Your task to perform on an android device: turn smart compose on in the gmail app Image 0: 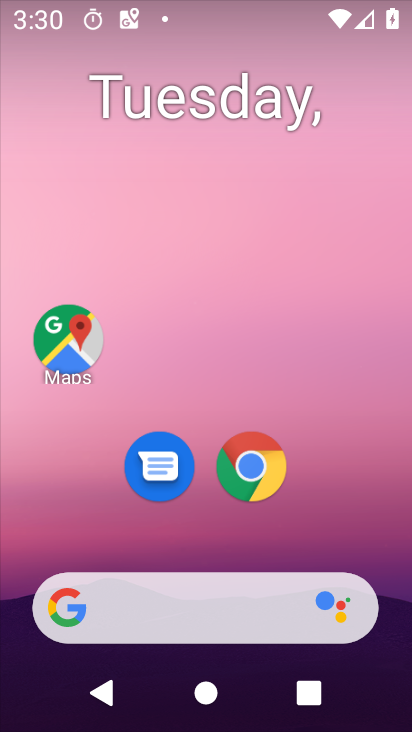
Step 0: drag from (377, 563) to (384, 253)
Your task to perform on an android device: turn smart compose on in the gmail app Image 1: 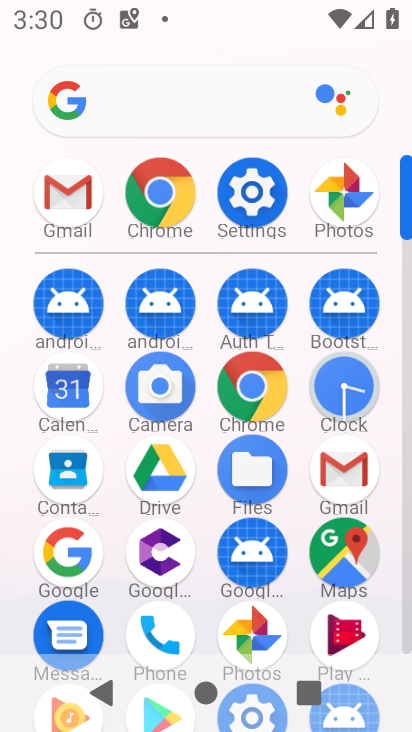
Step 1: click (368, 475)
Your task to perform on an android device: turn smart compose on in the gmail app Image 2: 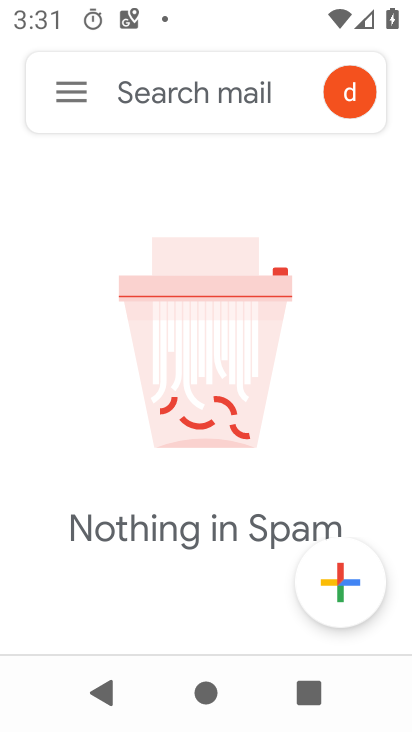
Step 2: click (74, 99)
Your task to perform on an android device: turn smart compose on in the gmail app Image 3: 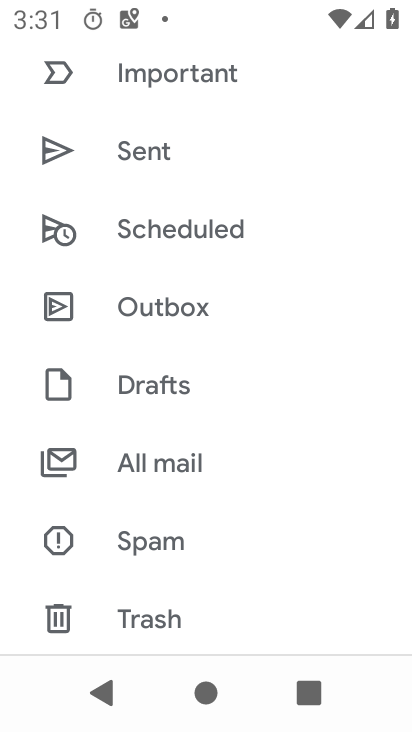
Step 3: drag from (315, 373) to (329, 301)
Your task to perform on an android device: turn smart compose on in the gmail app Image 4: 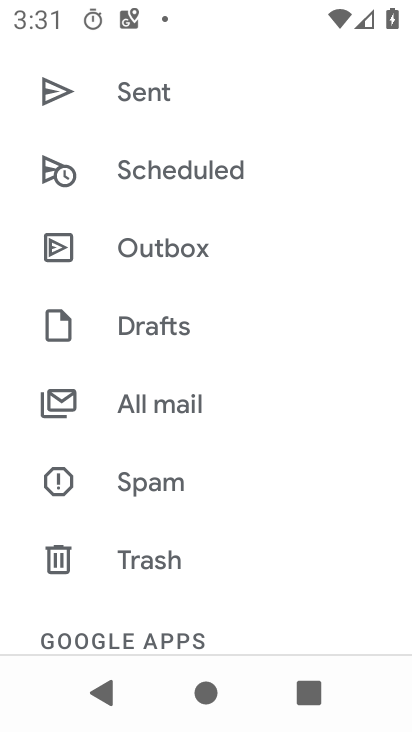
Step 4: drag from (334, 433) to (341, 349)
Your task to perform on an android device: turn smart compose on in the gmail app Image 5: 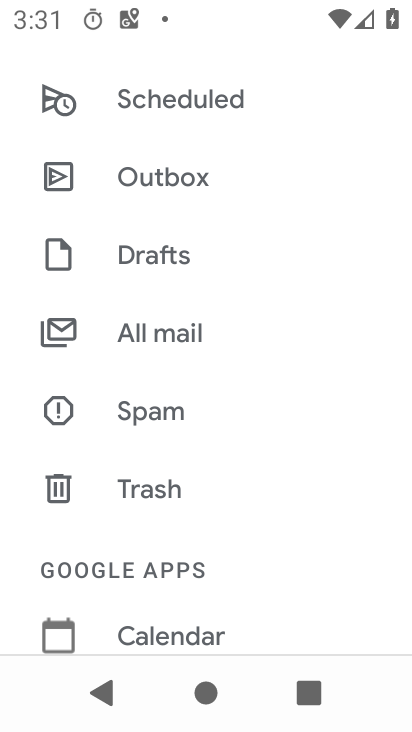
Step 5: drag from (324, 462) to (331, 357)
Your task to perform on an android device: turn smart compose on in the gmail app Image 6: 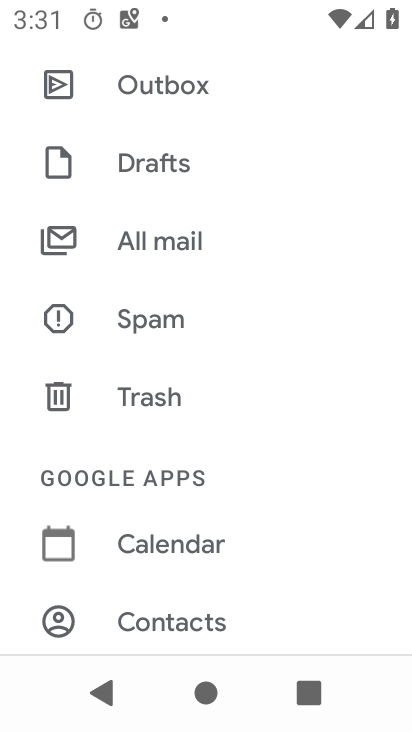
Step 6: drag from (322, 497) to (329, 357)
Your task to perform on an android device: turn smart compose on in the gmail app Image 7: 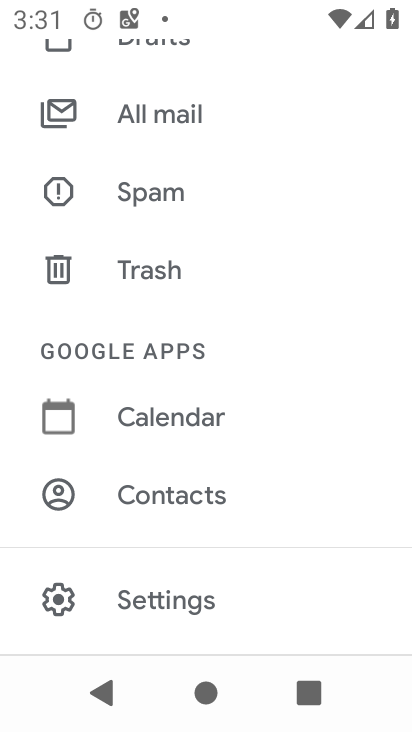
Step 7: click (238, 620)
Your task to perform on an android device: turn smart compose on in the gmail app Image 8: 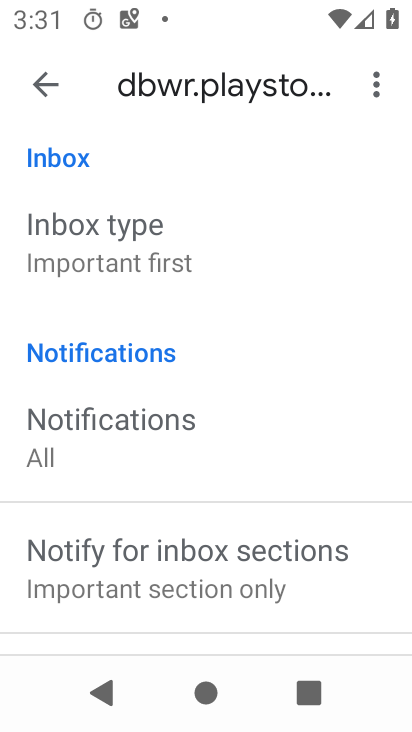
Step 8: task complete